Your task to perform on an android device: Open Wikipedia Image 0: 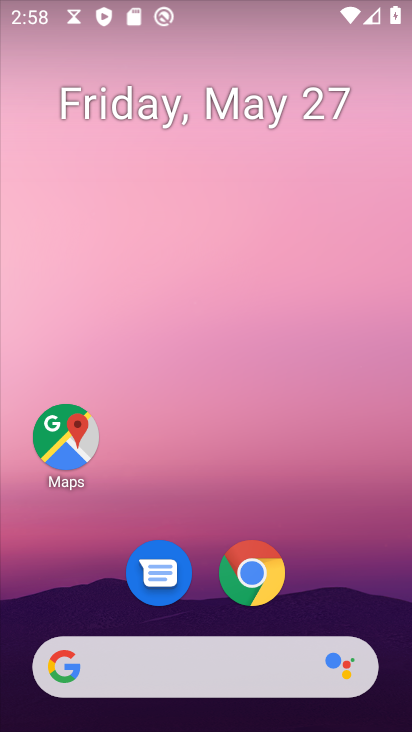
Step 0: click (258, 563)
Your task to perform on an android device: Open Wikipedia Image 1: 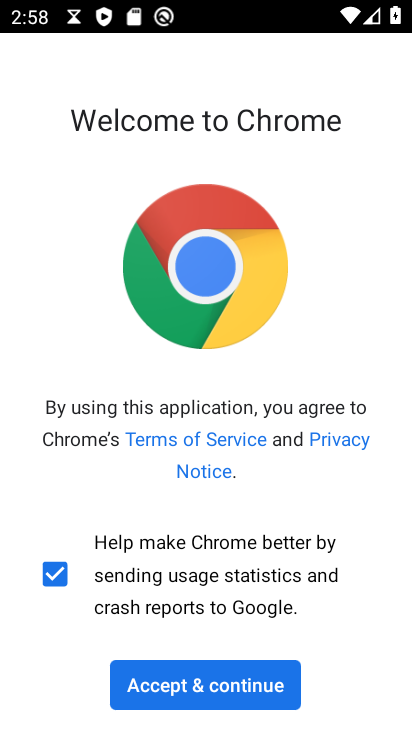
Step 1: click (223, 682)
Your task to perform on an android device: Open Wikipedia Image 2: 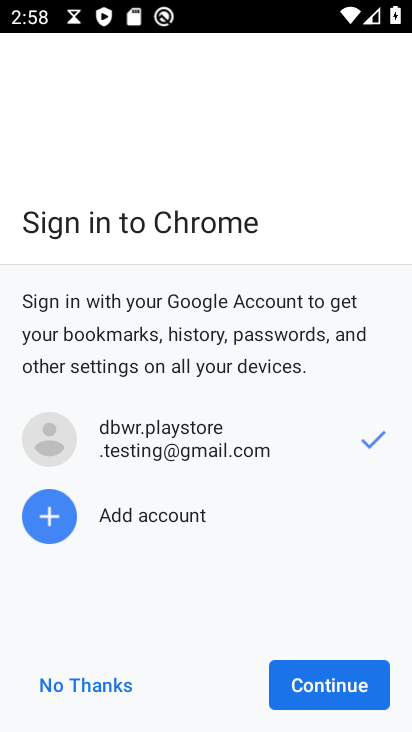
Step 2: click (316, 673)
Your task to perform on an android device: Open Wikipedia Image 3: 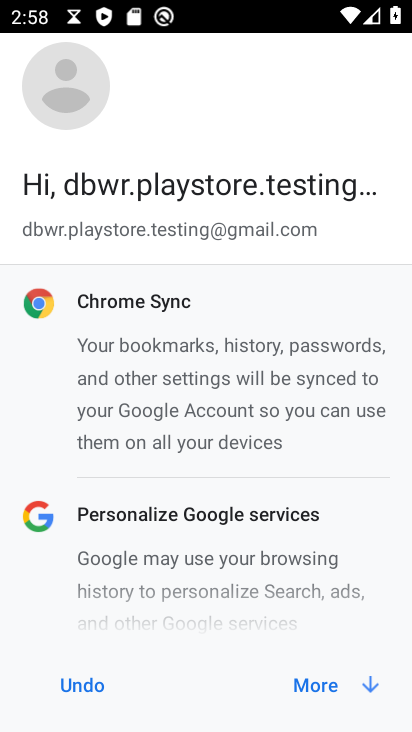
Step 3: click (313, 671)
Your task to perform on an android device: Open Wikipedia Image 4: 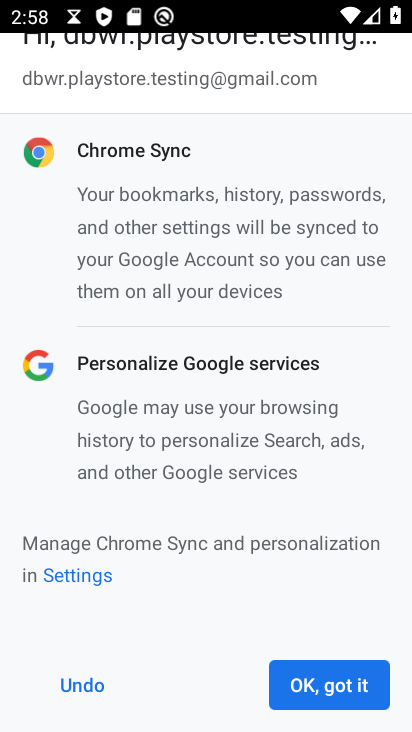
Step 4: click (308, 662)
Your task to perform on an android device: Open Wikipedia Image 5: 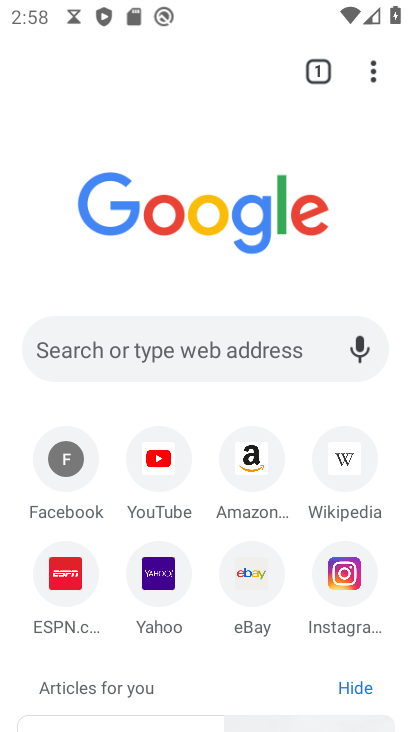
Step 5: click (347, 467)
Your task to perform on an android device: Open Wikipedia Image 6: 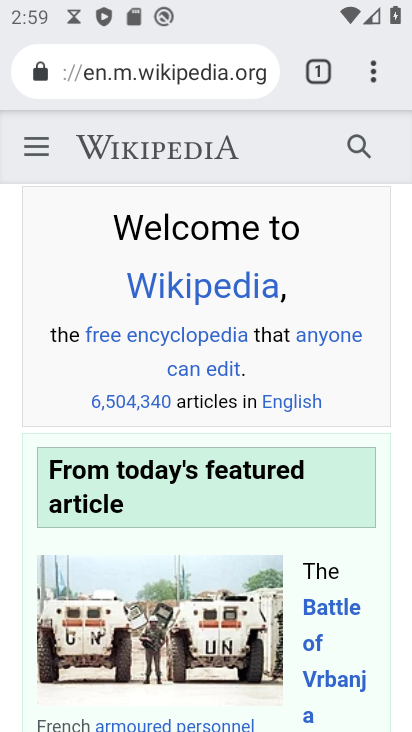
Step 6: task complete